Your task to perform on an android device: turn on wifi Image 0: 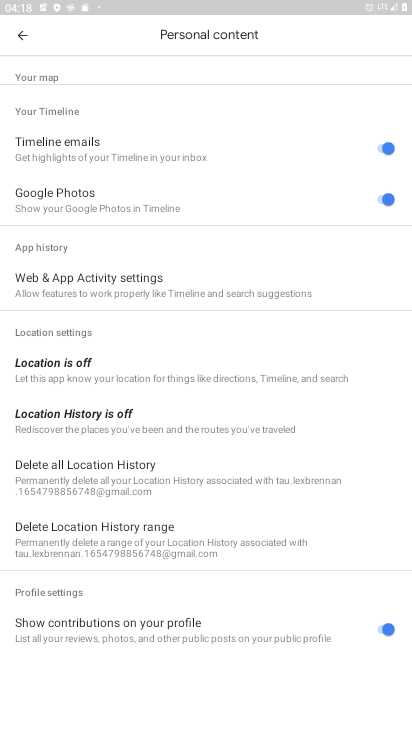
Step 0: press home button
Your task to perform on an android device: turn on wifi Image 1: 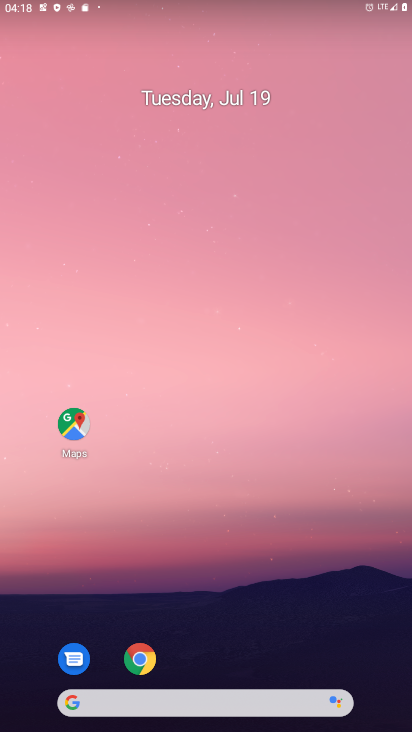
Step 1: drag from (362, 0) to (329, 554)
Your task to perform on an android device: turn on wifi Image 2: 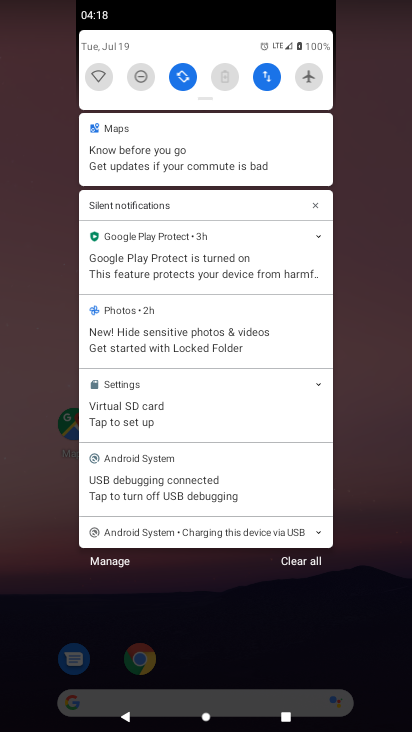
Step 2: click (89, 82)
Your task to perform on an android device: turn on wifi Image 3: 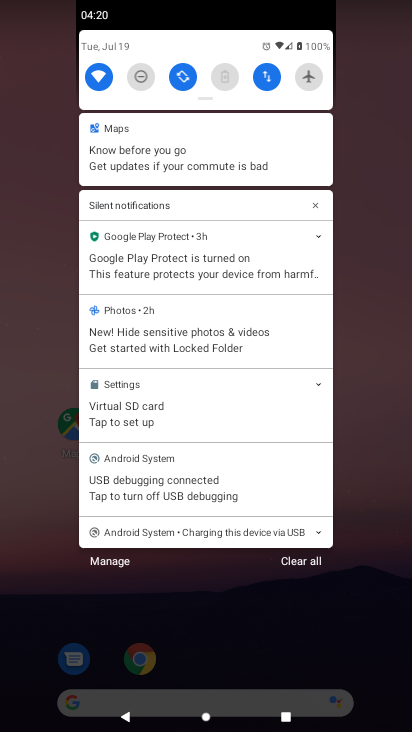
Step 3: task complete